Your task to perform on an android device: What's the weather going to be this weekend? Image 0: 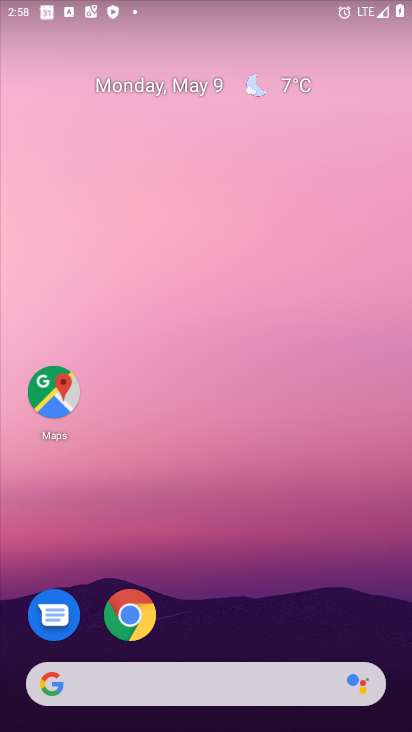
Step 0: drag from (387, 659) to (299, 102)
Your task to perform on an android device: What's the weather going to be this weekend? Image 1: 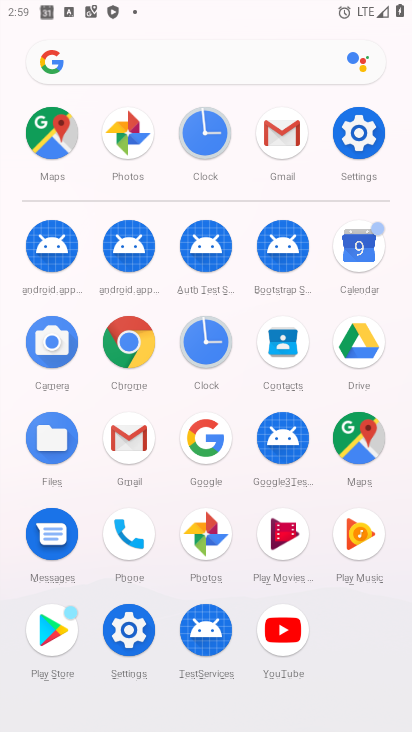
Step 1: click (186, 68)
Your task to perform on an android device: What's the weather going to be this weekend? Image 2: 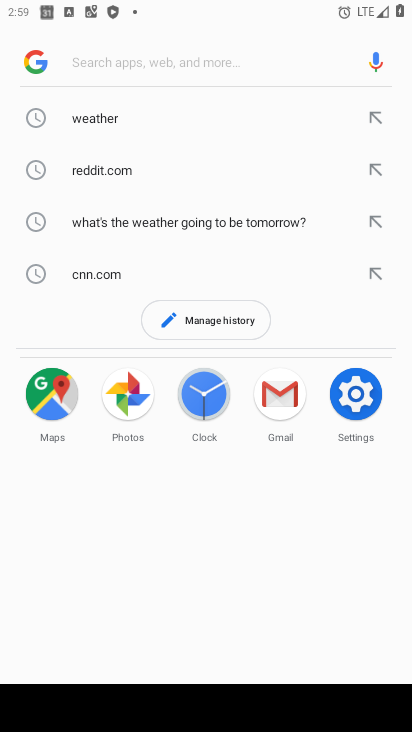
Step 2: click (96, 121)
Your task to perform on an android device: What's the weather going to be this weekend? Image 3: 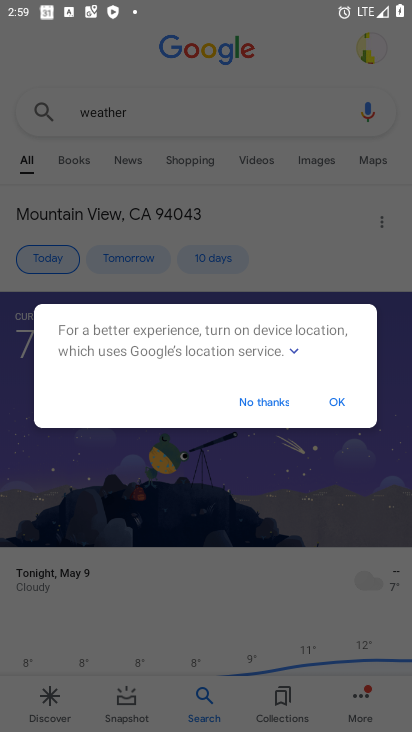
Step 3: click (334, 401)
Your task to perform on an android device: What's the weather going to be this weekend? Image 4: 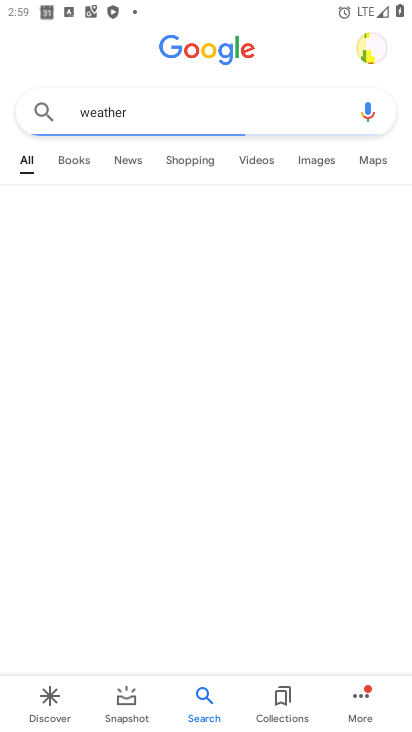
Step 4: click (209, 258)
Your task to perform on an android device: What's the weather going to be this weekend? Image 5: 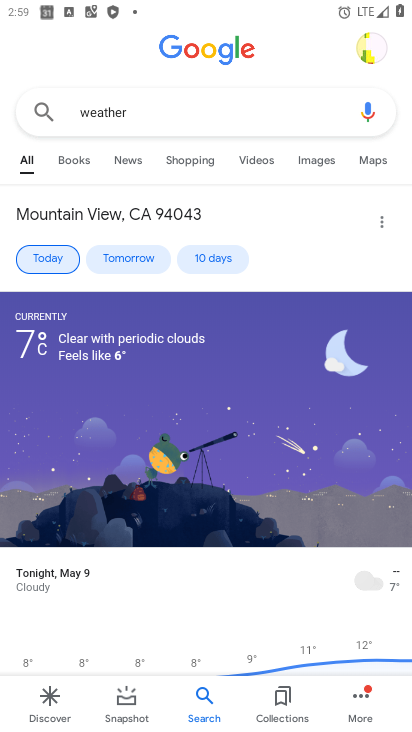
Step 5: click (211, 261)
Your task to perform on an android device: What's the weather going to be this weekend? Image 6: 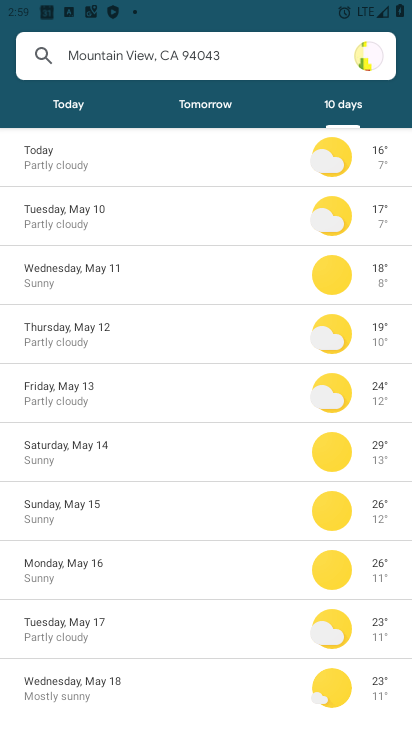
Step 6: task complete